Your task to perform on an android device: Open calendar and show me the second week of next month Image 0: 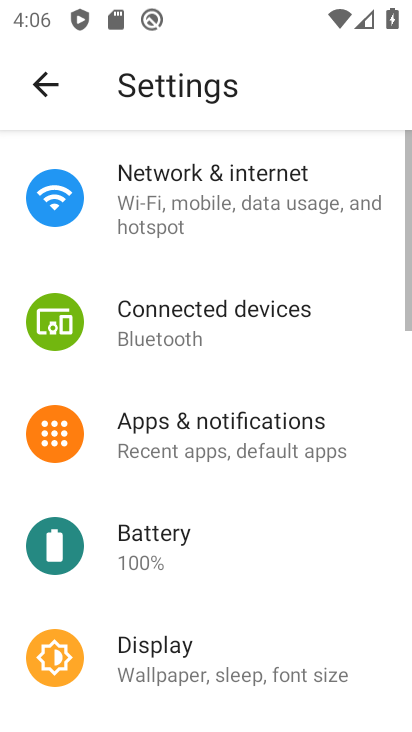
Step 0: press home button
Your task to perform on an android device: Open calendar and show me the second week of next month Image 1: 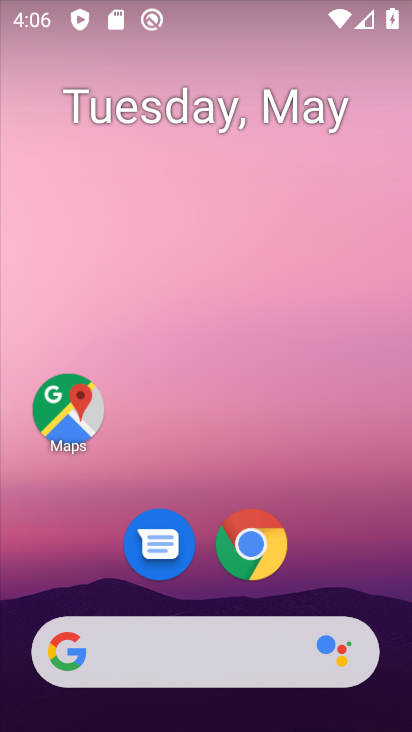
Step 1: click (59, 412)
Your task to perform on an android device: Open calendar and show me the second week of next month Image 2: 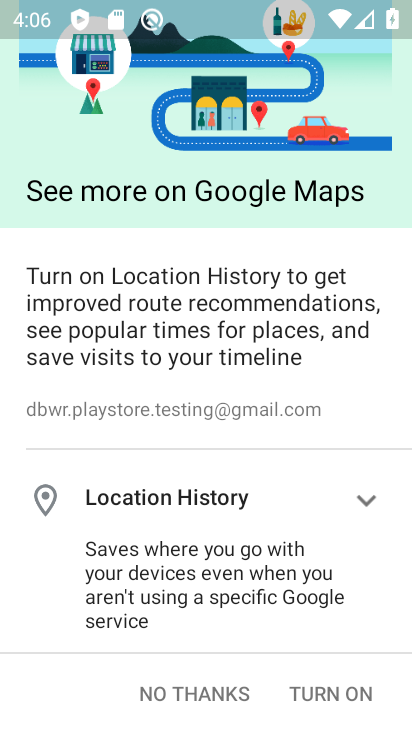
Step 2: press home button
Your task to perform on an android device: Open calendar and show me the second week of next month Image 3: 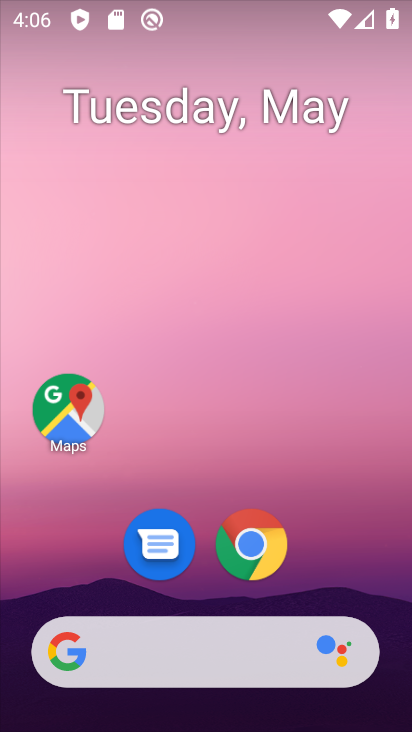
Step 3: drag from (246, 568) to (246, 222)
Your task to perform on an android device: Open calendar and show me the second week of next month Image 4: 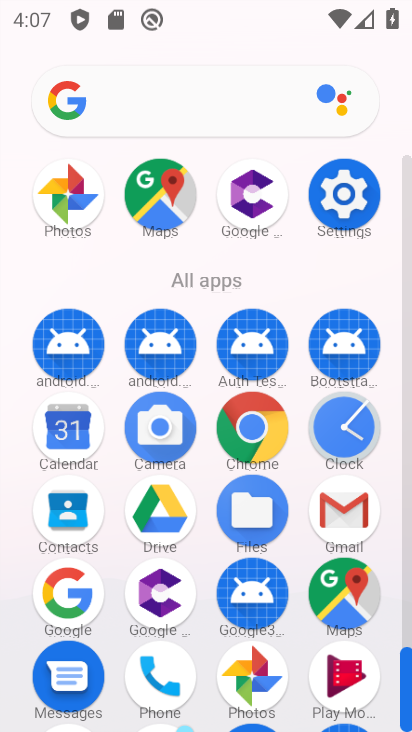
Step 4: click (57, 437)
Your task to perform on an android device: Open calendar and show me the second week of next month Image 5: 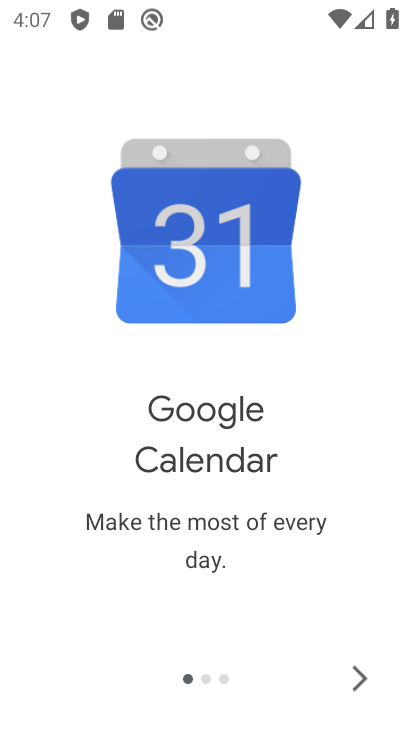
Step 5: click (355, 683)
Your task to perform on an android device: Open calendar and show me the second week of next month Image 6: 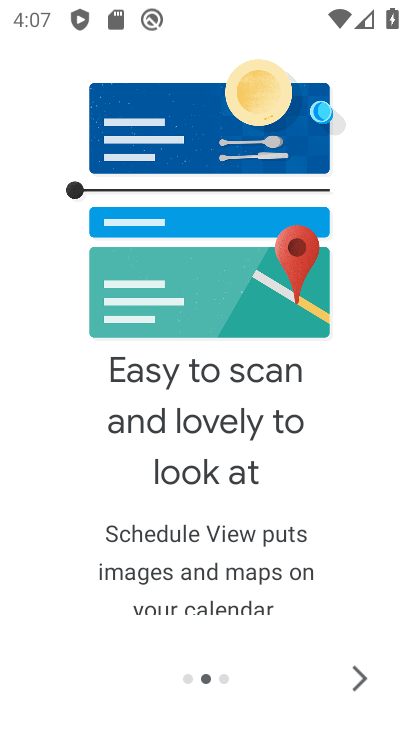
Step 6: click (356, 683)
Your task to perform on an android device: Open calendar and show me the second week of next month Image 7: 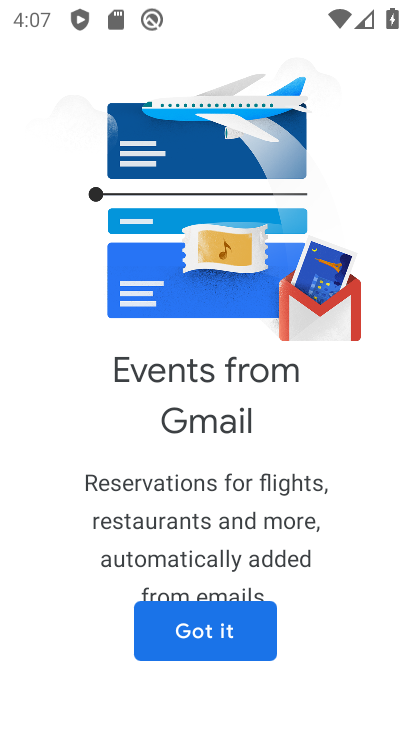
Step 7: click (222, 621)
Your task to perform on an android device: Open calendar and show me the second week of next month Image 8: 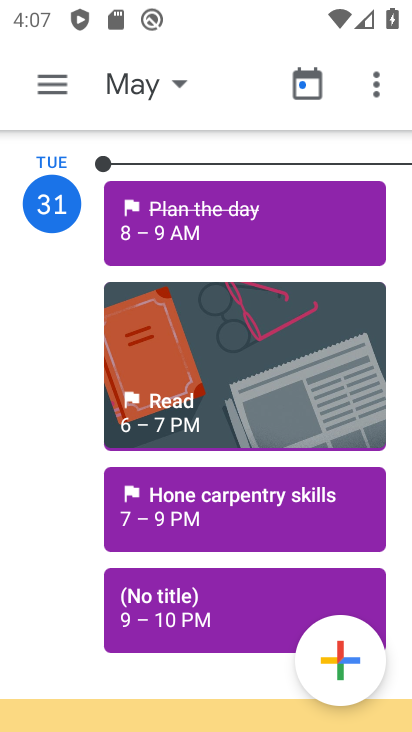
Step 8: click (132, 82)
Your task to perform on an android device: Open calendar and show me the second week of next month Image 9: 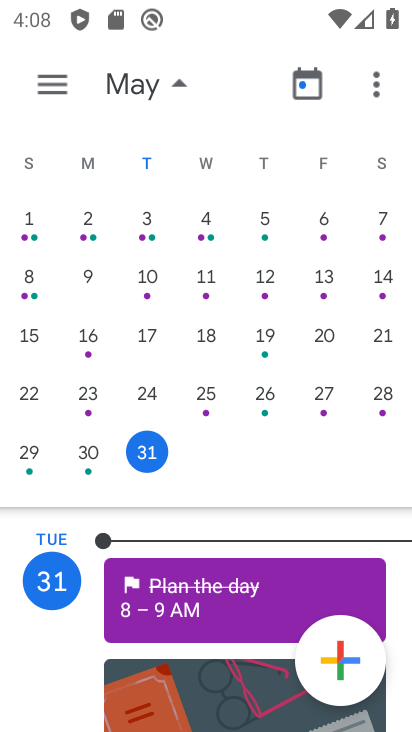
Step 9: drag from (351, 341) to (6, 360)
Your task to perform on an android device: Open calendar and show me the second week of next month Image 10: 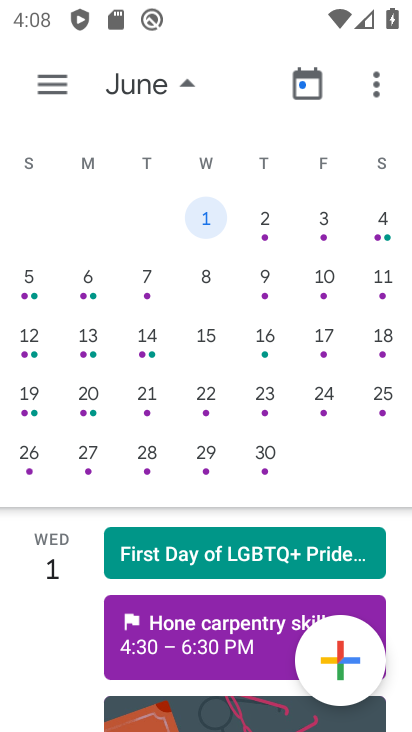
Step 10: click (27, 286)
Your task to perform on an android device: Open calendar and show me the second week of next month Image 11: 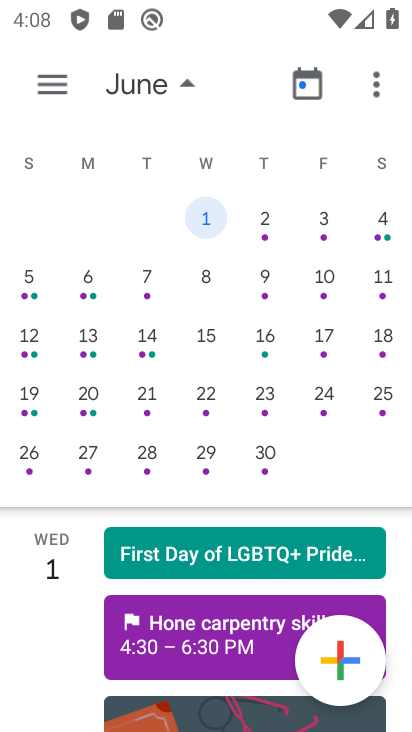
Step 11: click (37, 279)
Your task to perform on an android device: Open calendar and show me the second week of next month Image 12: 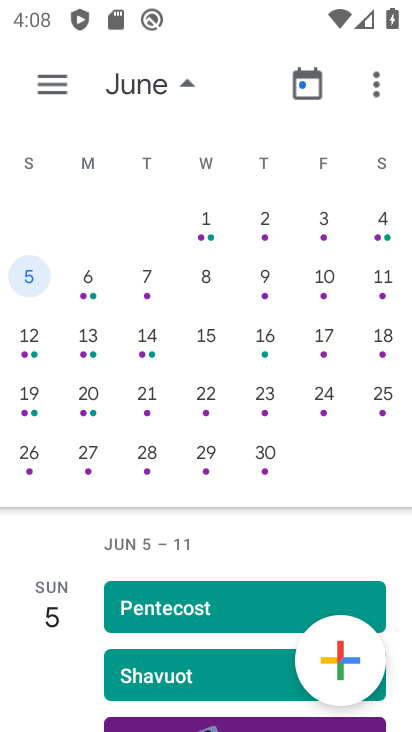
Step 12: task complete